Your task to perform on an android device: toggle wifi Image 0: 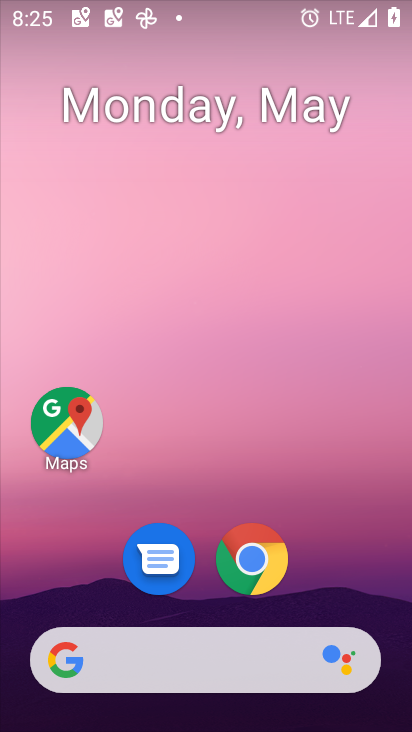
Step 0: drag from (236, 12) to (274, 427)
Your task to perform on an android device: toggle wifi Image 1: 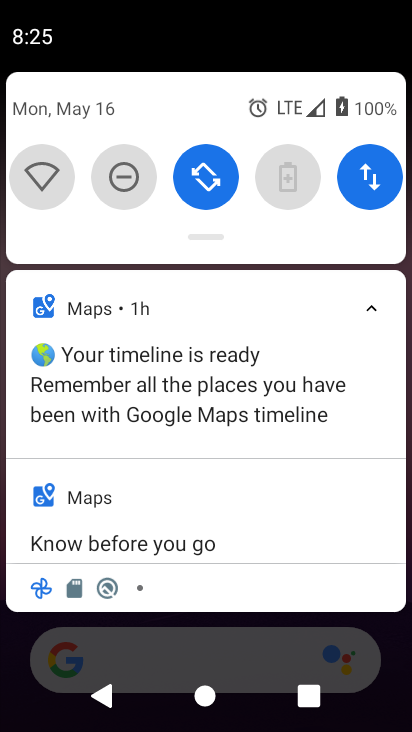
Step 1: click (41, 181)
Your task to perform on an android device: toggle wifi Image 2: 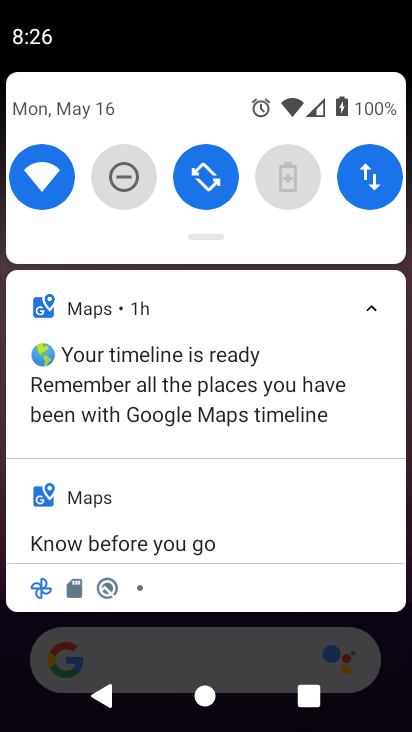
Step 2: task complete